Your task to perform on an android device: choose inbox layout in the gmail app Image 0: 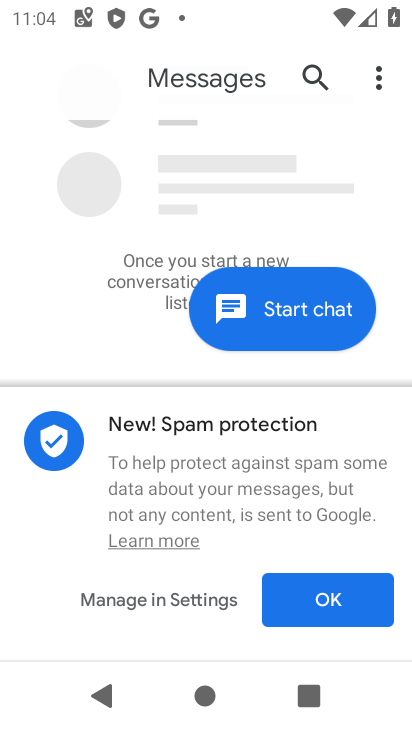
Step 0: press home button
Your task to perform on an android device: choose inbox layout in the gmail app Image 1: 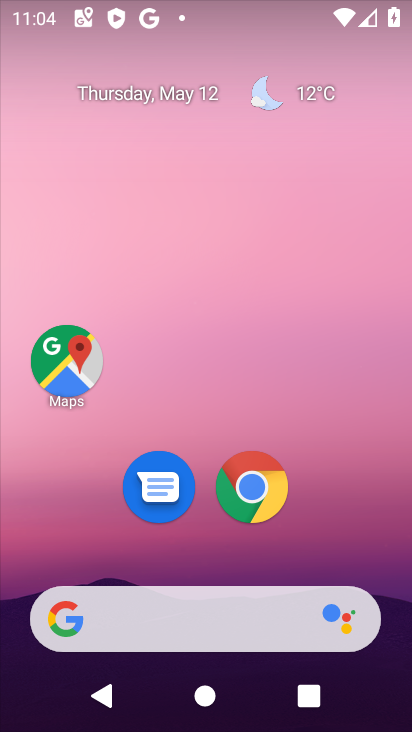
Step 1: drag from (344, 517) to (285, 0)
Your task to perform on an android device: choose inbox layout in the gmail app Image 2: 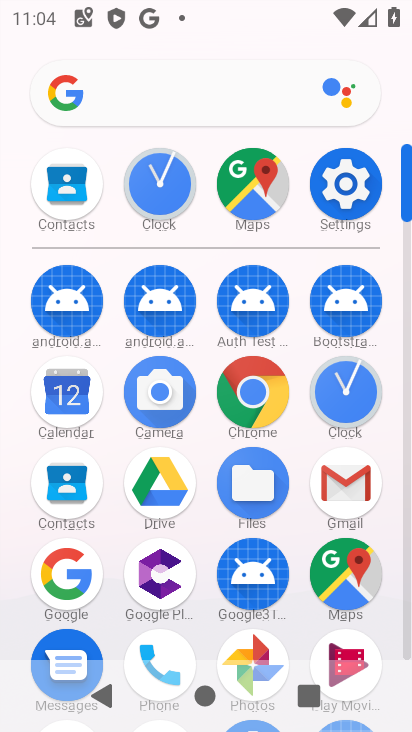
Step 2: click (338, 490)
Your task to perform on an android device: choose inbox layout in the gmail app Image 3: 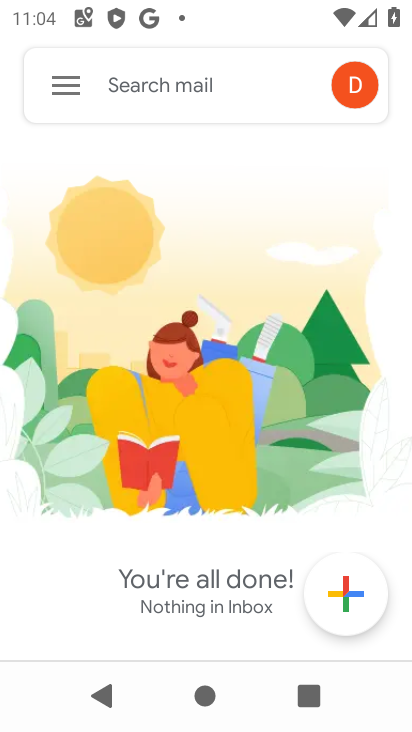
Step 3: click (58, 87)
Your task to perform on an android device: choose inbox layout in the gmail app Image 4: 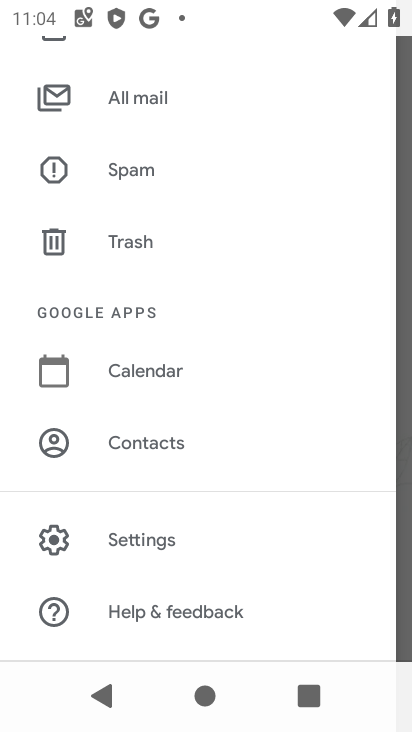
Step 4: click (146, 540)
Your task to perform on an android device: choose inbox layout in the gmail app Image 5: 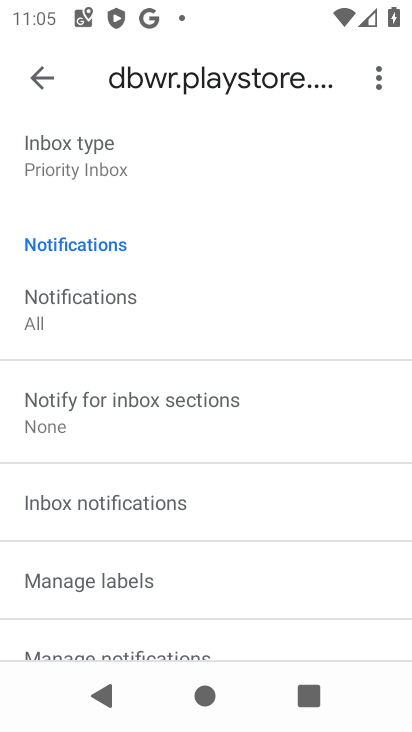
Step 5: click (50, 163)
Your task to perform on an android device: choose inbox layout in the gmail app Image 6: 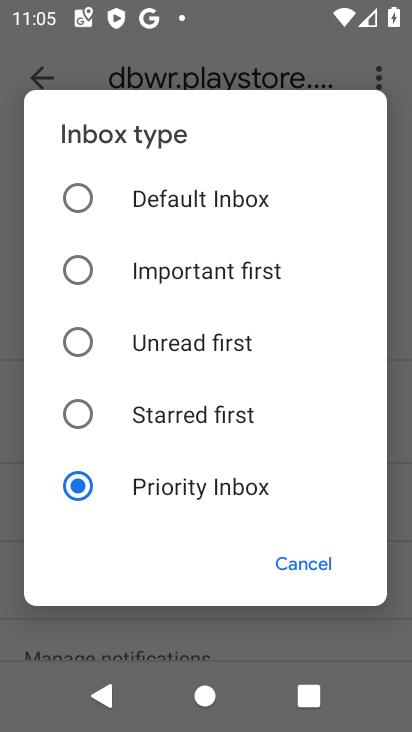
Step 6: click (83, 404)
Your task to perform on an android device: choose inbox layout in the gmail app Image 7: 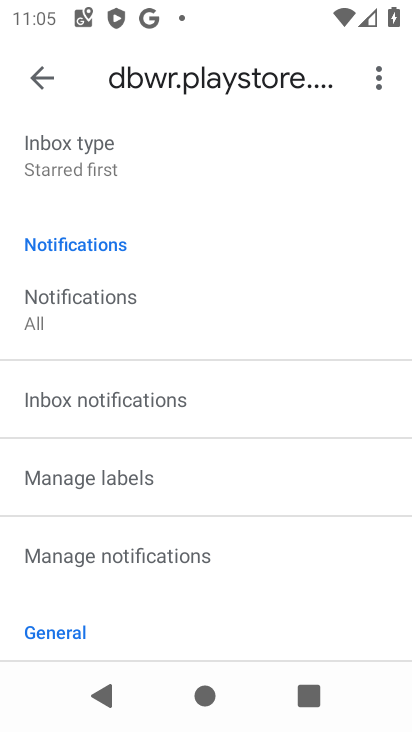
Step 7: task complete